Your task to perform on an android device: Show me popular videos on Youtube Image 0: 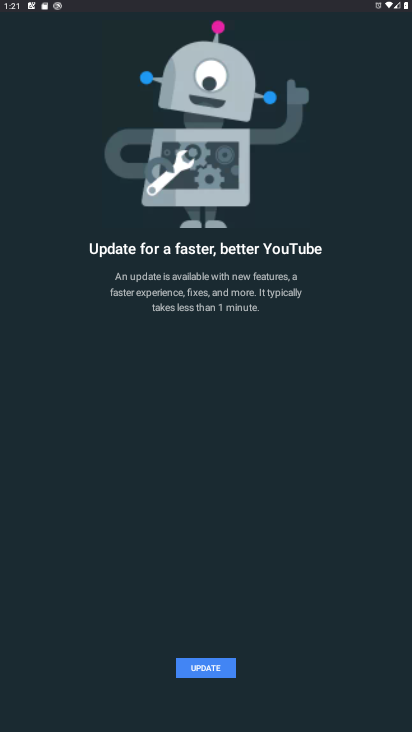
Step 0: press home button
Your task to perform on an android device: Show me popular videos on Youtube Image 1: 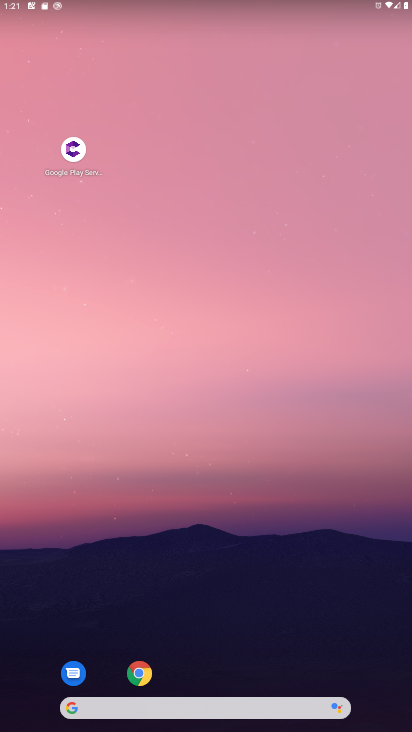
Step 1: drag from (234, 632) to (219, 222)
Your task to perform on an android device: Show me popular videos on Youtube Image 2: 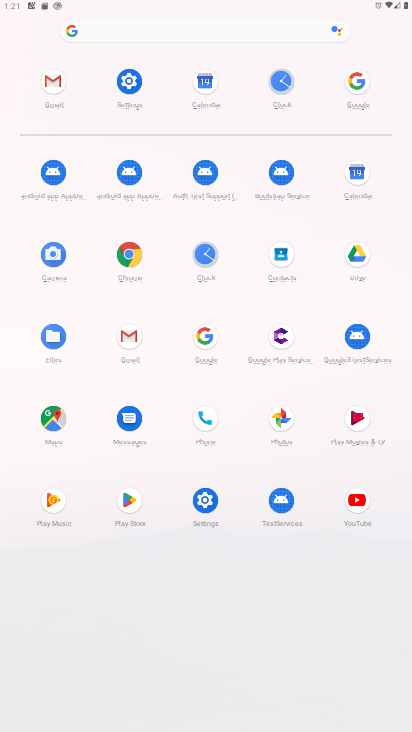
Step 2: click (348, 511)
Your task to perform on an android device: Show me popular videos on Youtube Image 3: 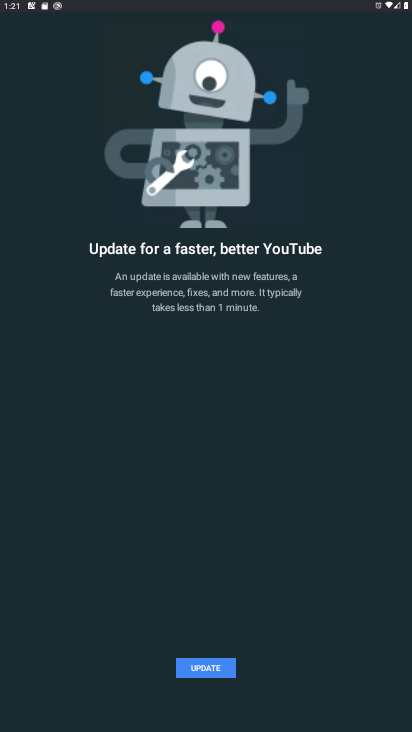
Step 3: click (200, 674)
Your task to perform on an android device: Show me popular videos on Youtube Image 4: 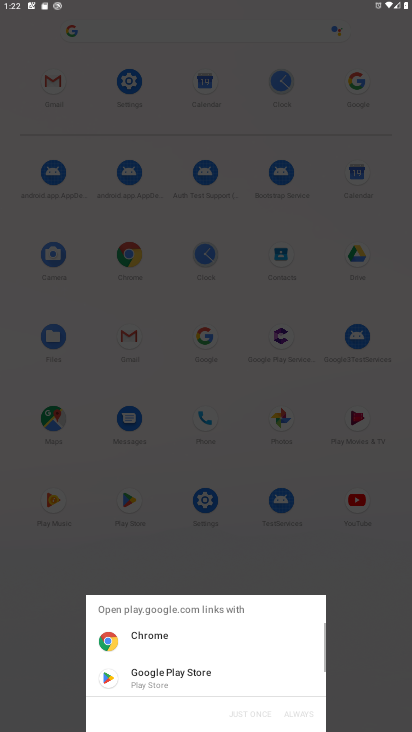
Step 4: click (161, 662)
Your task to perform on an android device: Show me popular videos on Youtube Image 5: 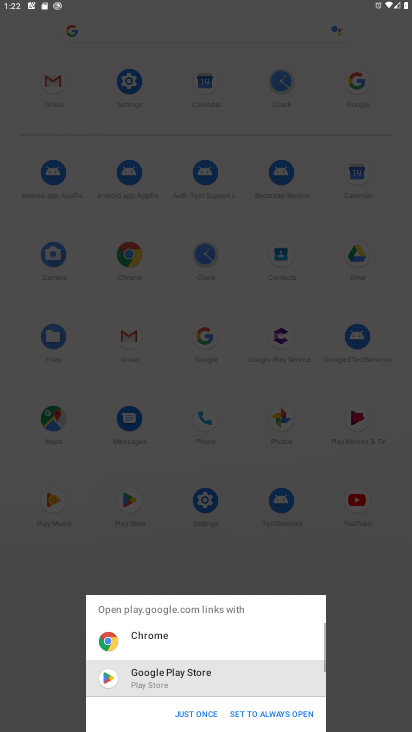
Step 5: click (207, 710)
Your task to perform on an android device: Show me popular videos on Youtube Image 6: 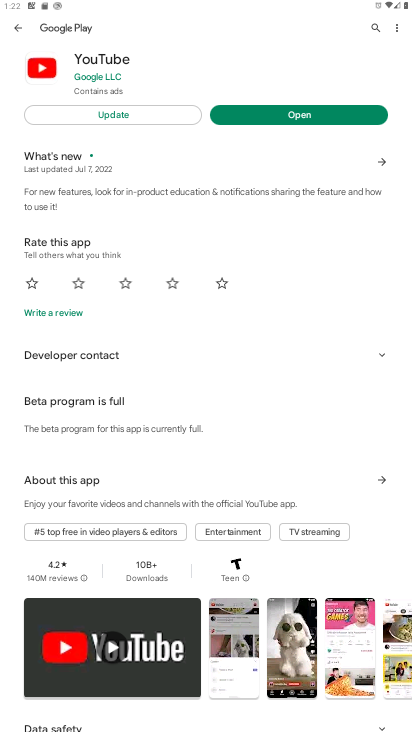
Step 6: click (107, 118)
Your task to perform on an android device: Show me popular videos on Youtube Image 7: 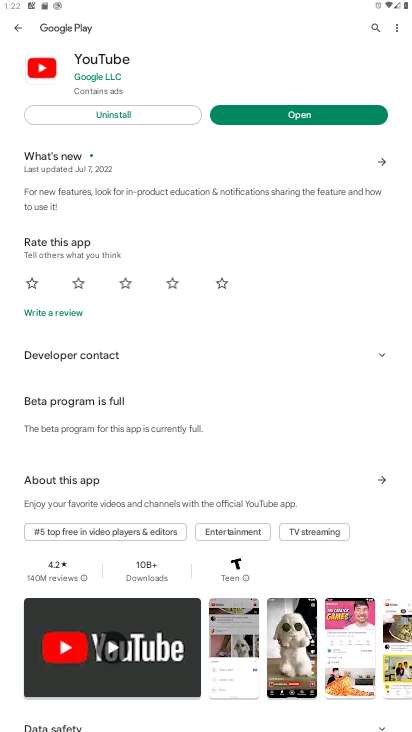
Step 7: click (323, 109)
Your task to perform on an android device: Show me popular videos on Youtube Image 8: 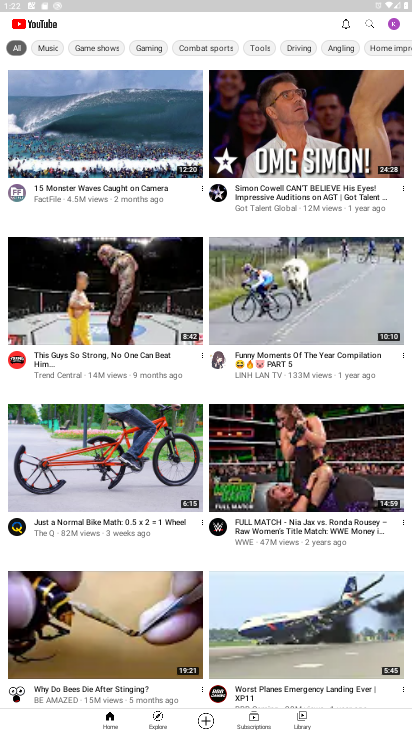
Step 8: click (362, 21)
Your task to perform on an android device: Show me popular videos on Youtube Image 9: 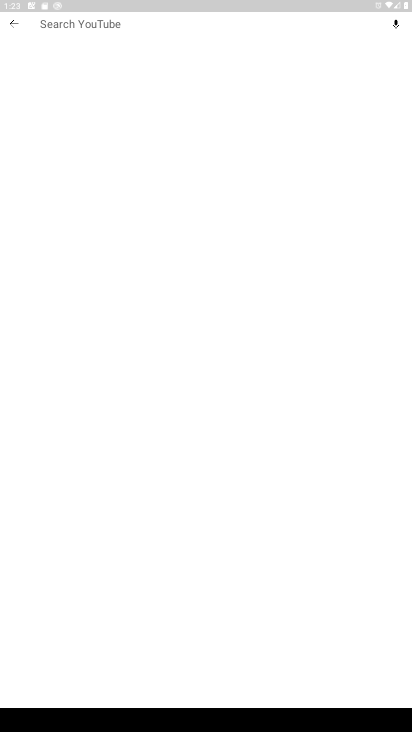
Step 9: type "popular videos"
Your task to perform on an android device: Show me popular videos on Youtube Image 10: 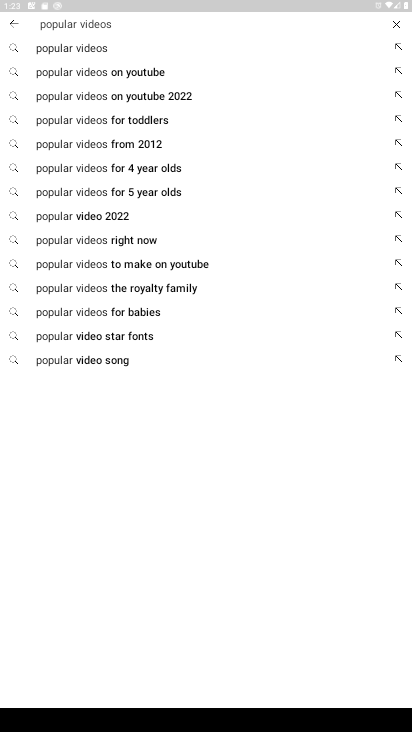
Step 10: click (121, 53)
Your task to perform on an android device: Show me popular videos on Youtube Image 11: 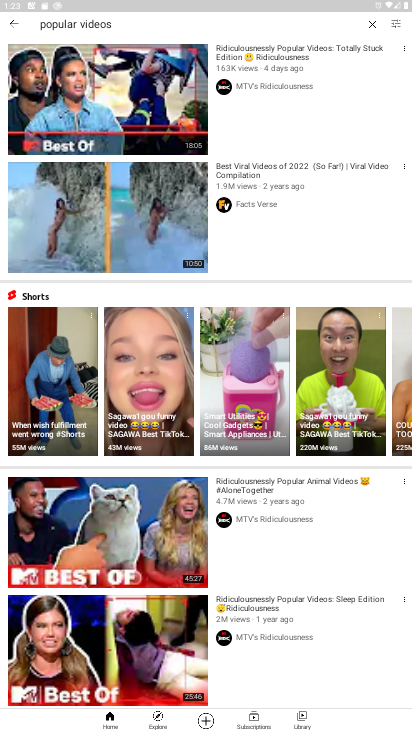
Step 11: task complete